Your task to perform on an android device: Go to Wikipedia Image 0: 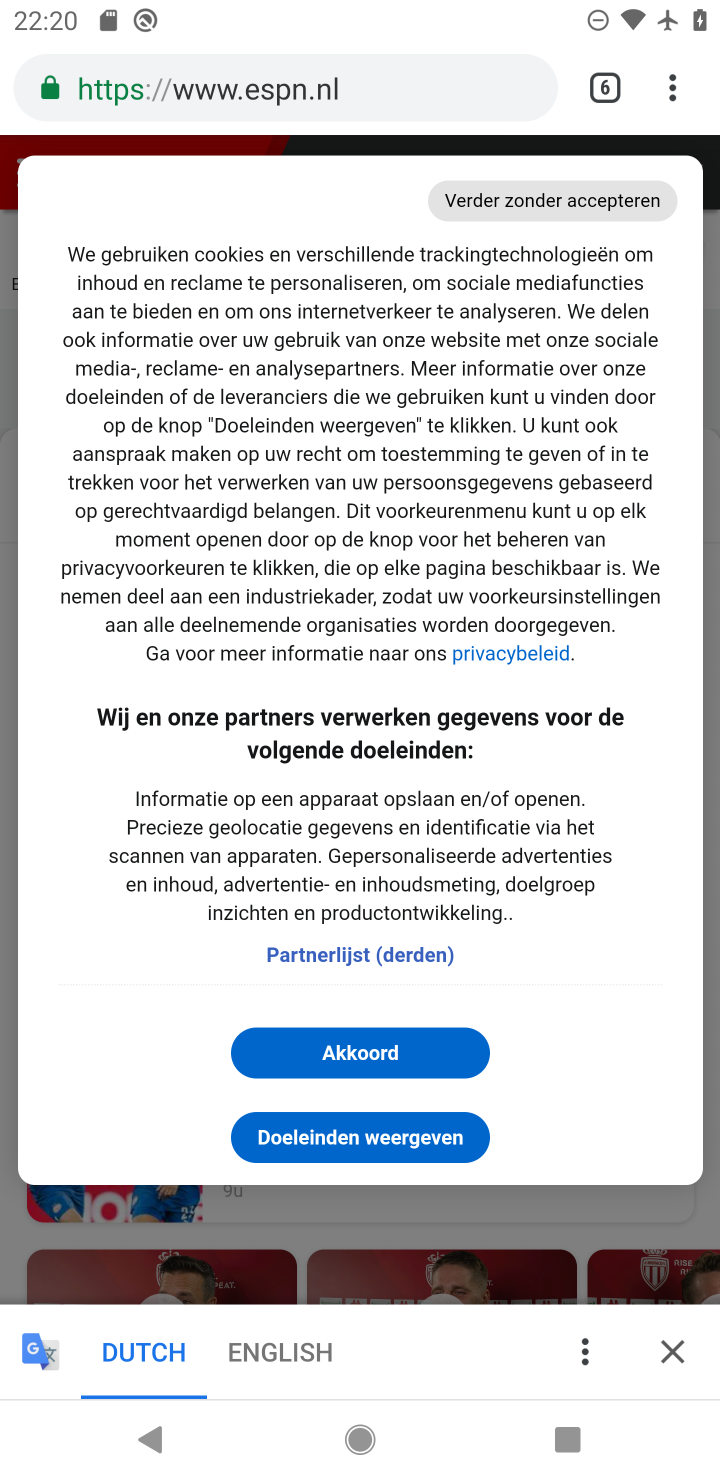
Step 0: click (671, 103)
Your task to perform on an android device: Go to Wikipedia Image 1: 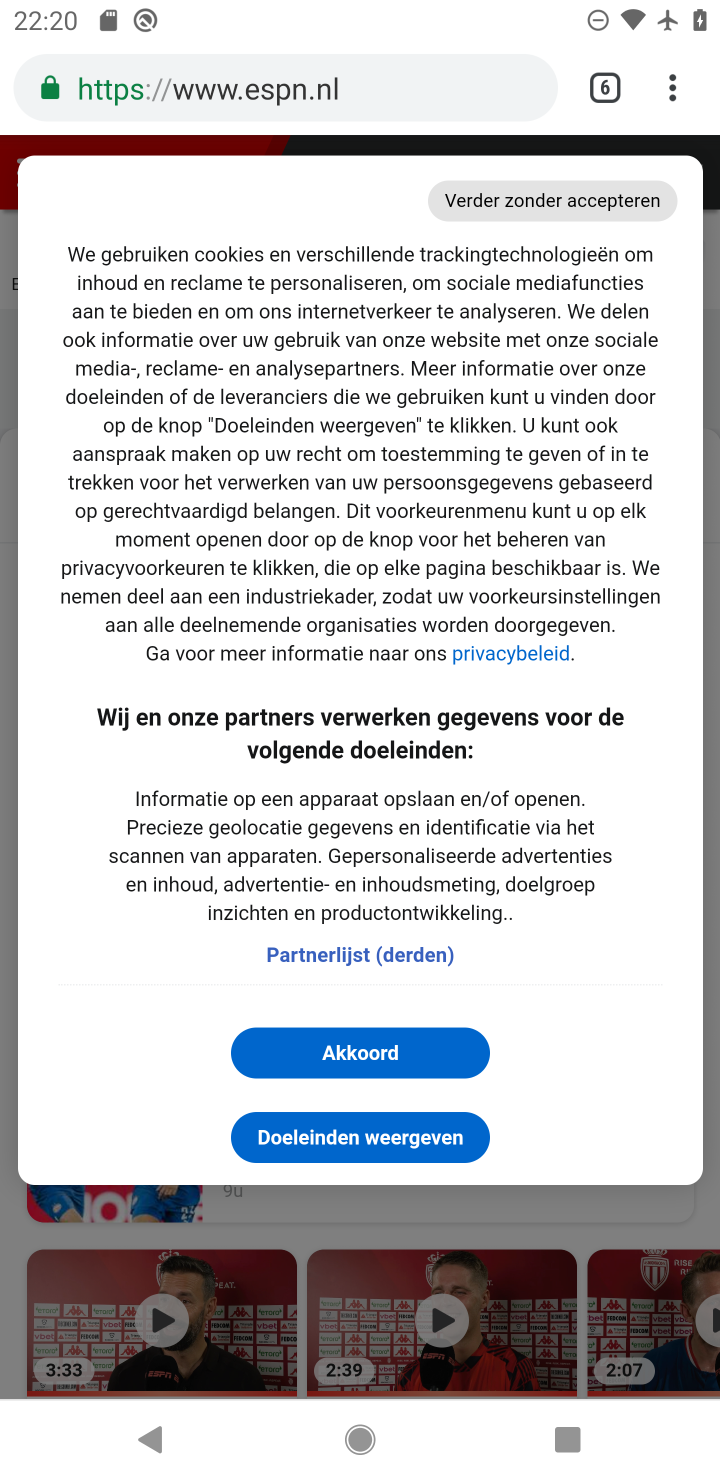
Step 1: click (670, 97)
Your task to perform on an android device: Go to Wikipedia Image 2: 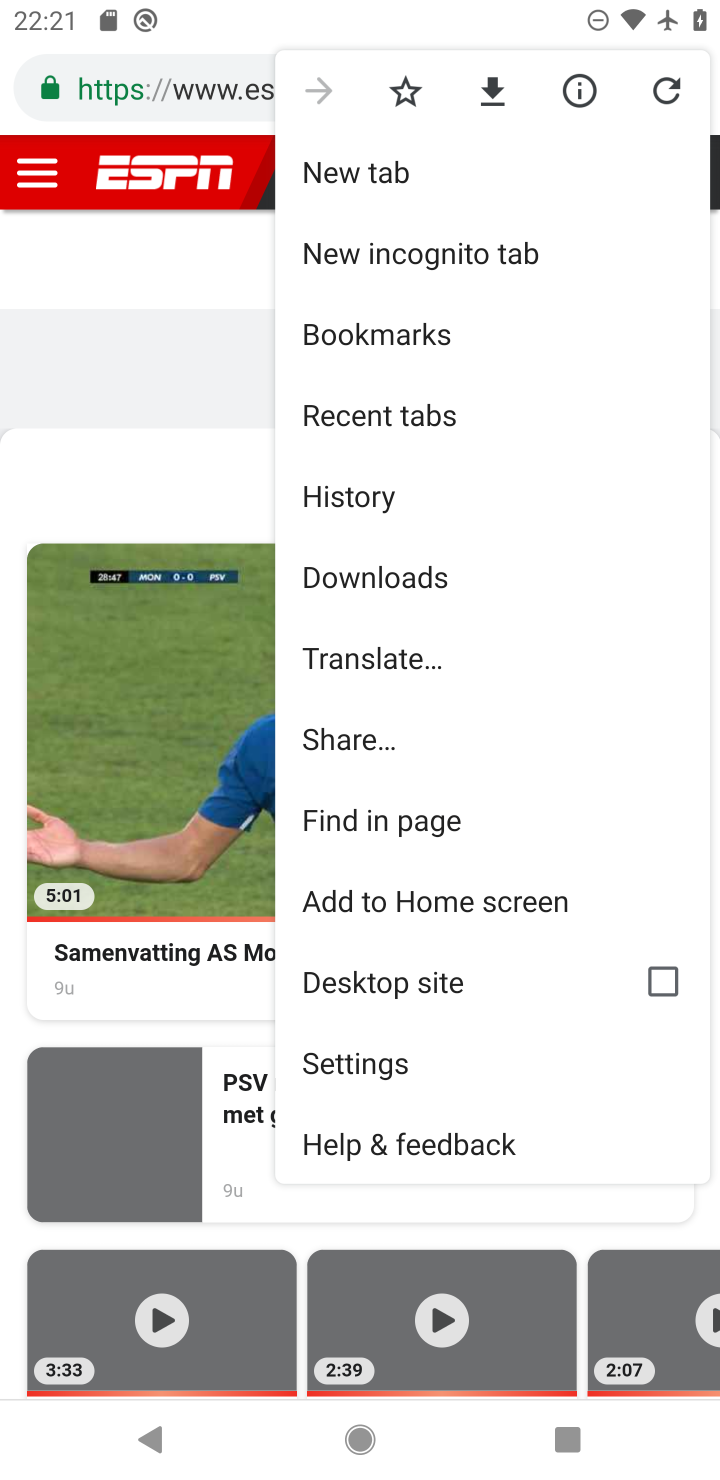
Step 2: click (359, 171)
Your task to perform on an android device: Go to Wikipedia Image 3: 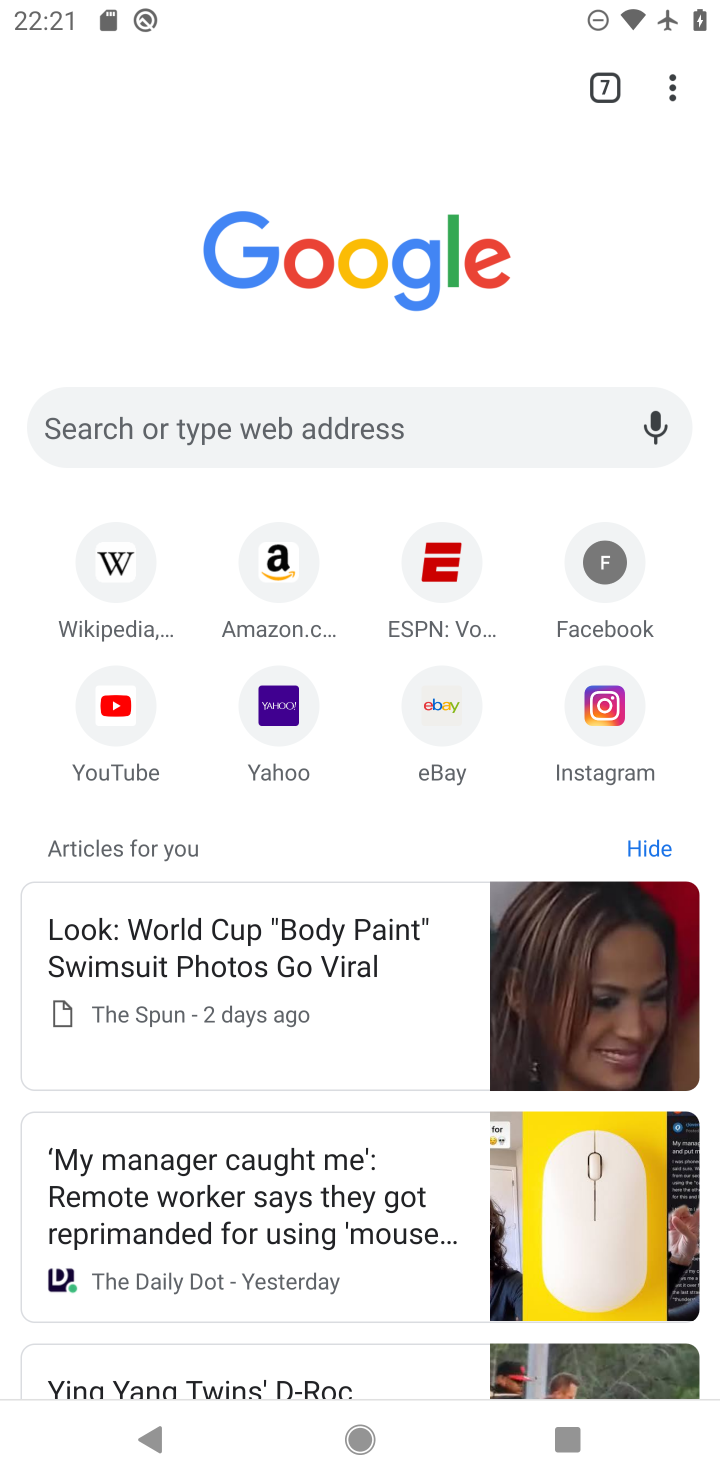
Step 3: click (98, 580)
Your task to perform on an android device: Go to Wikipedia Image 4: 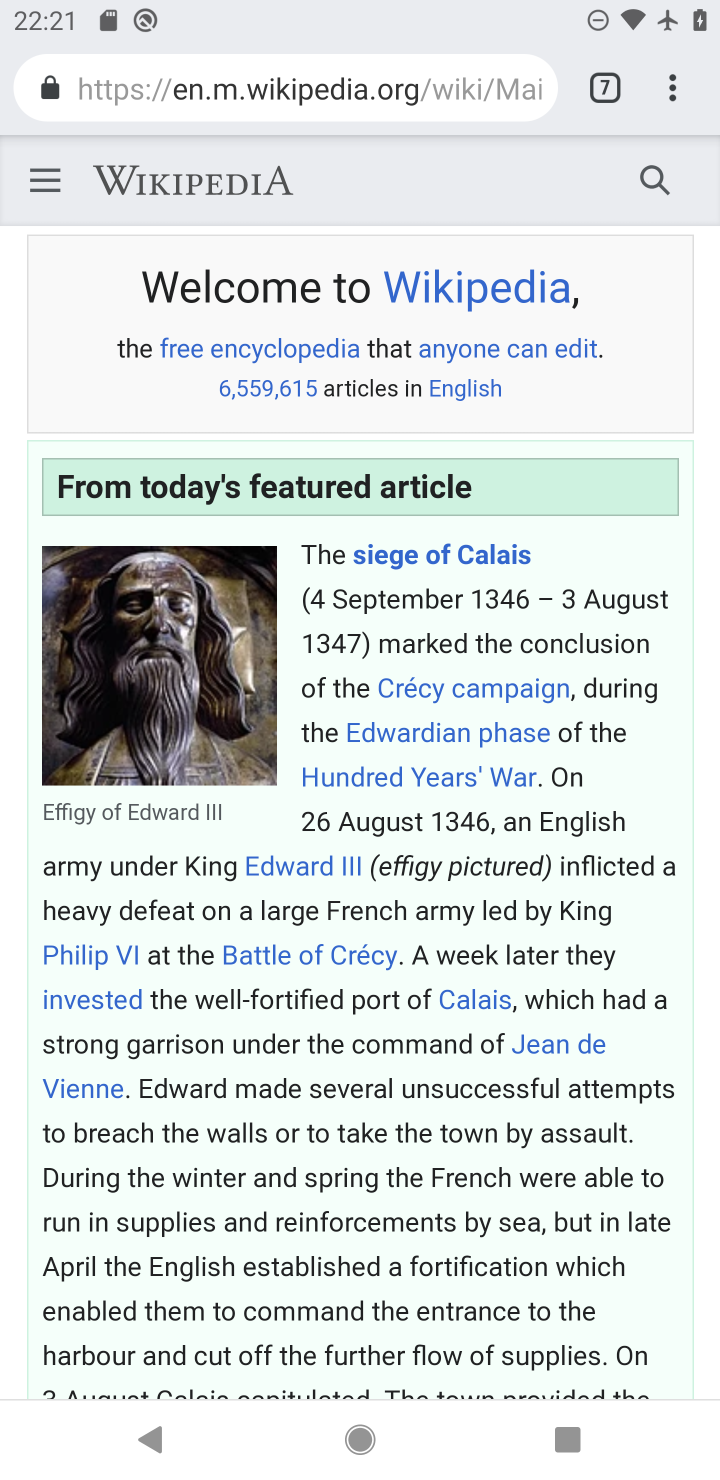
Step 4: task complete